Your task to perform on an android device: Go to battery settings Image 0: 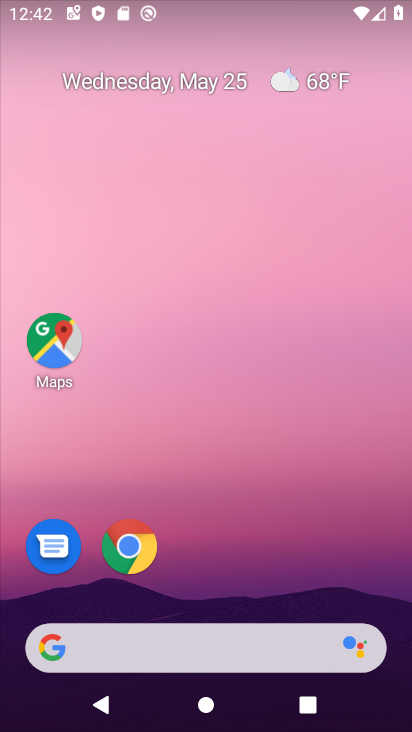
Step 0: drag from (269, 557) to (244, 138)
Your task to perform on an android device: Go to battery settings Image 1: 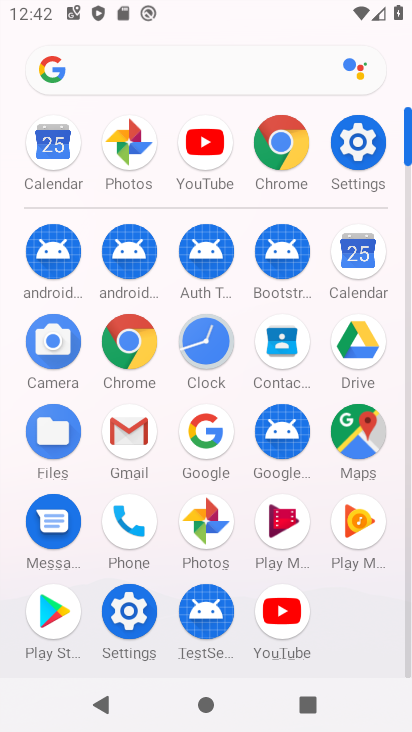
Step 1: click (353, 163)
Your task to perform on an android device: Go to battery settings Image 2: 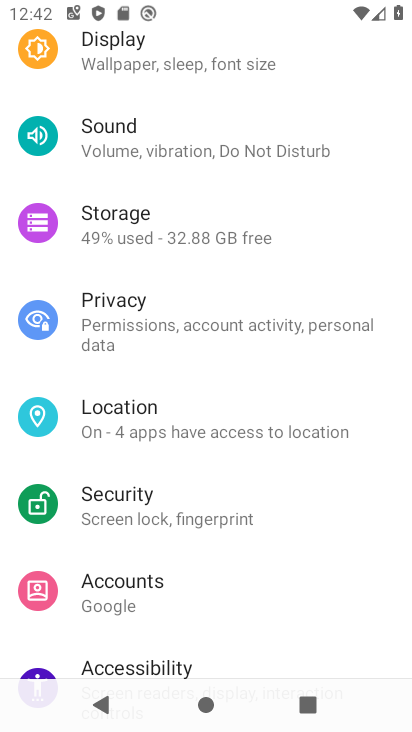
Step 2: drag from (188, 174) to (246, 309)
Your task to perform on an android device: Go to battery settings Image 3: 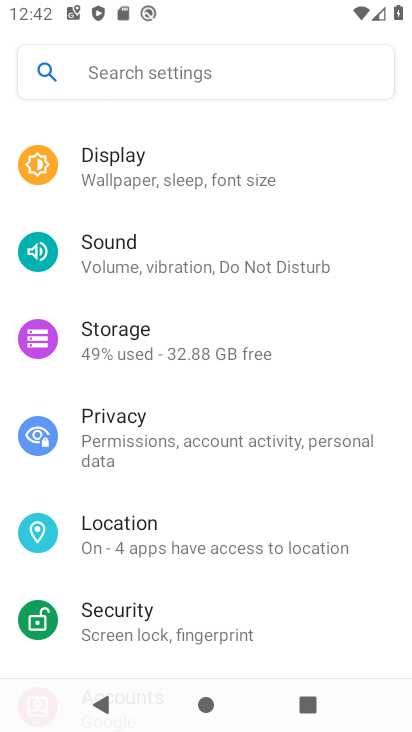
Step 3: drag from (275, 232) to (353, 385)
Your task to perform on an android device: Go to battery settings Image 4: 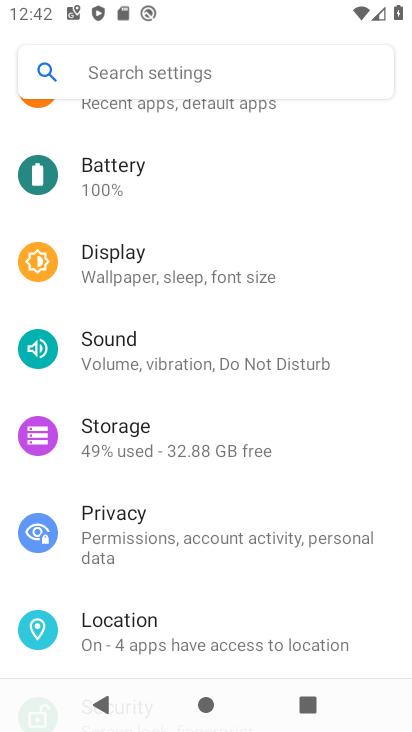
Step 4: click (118, 170)
Your task to perform on an android device: Go to battery settings Image 5: 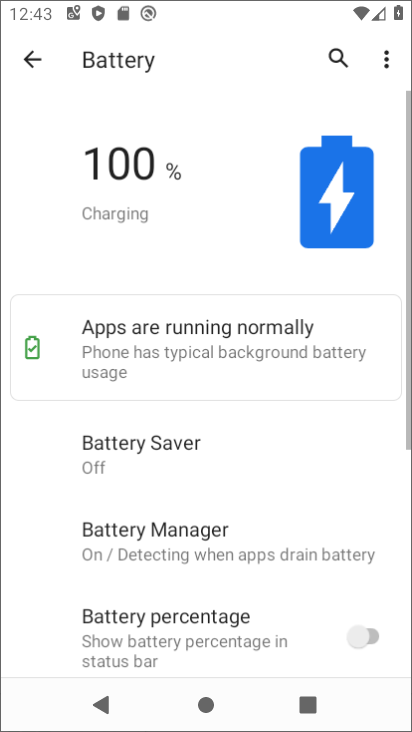
Step 5: task complete